Your task to perform on an android device: turn notification dots on Image 0: 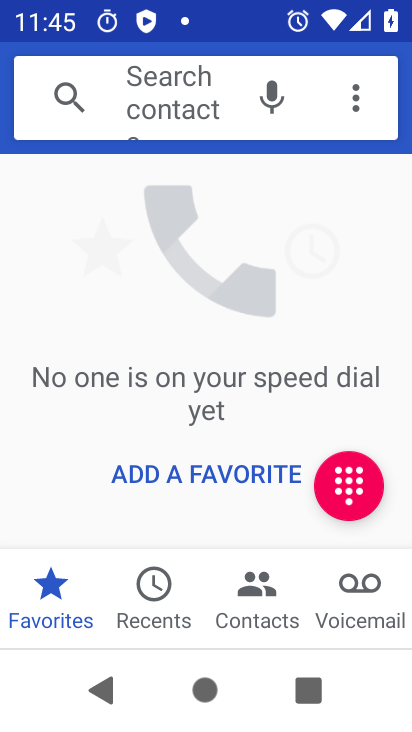
Step 0: press home button
Your task to perform on an android device: turn notification dots on Image 1: 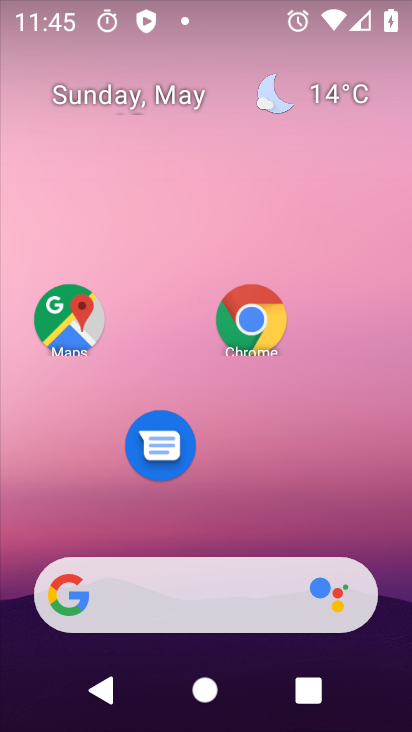
Step 1: drag from (181, 586) to (348, 133)
Your task to perform on an android device: turn notification dots on Image 2: 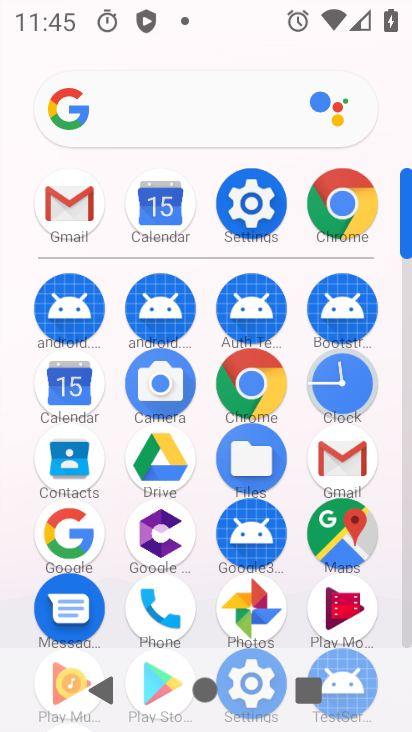
Step 2: click (245, 212)
Your task to perform on an android device: turn notification dots on Image 3: 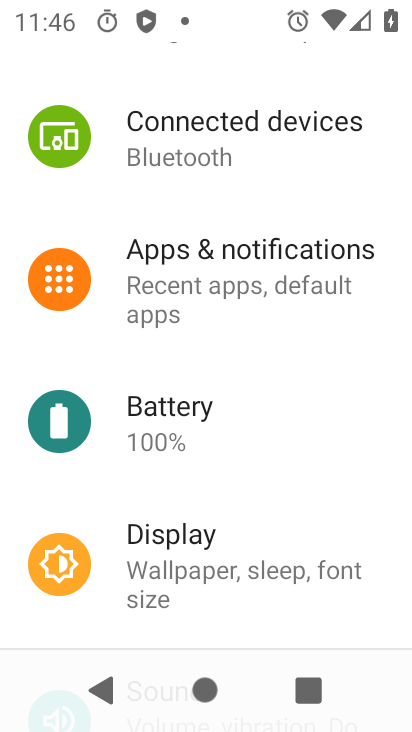
Step 3: click (275, 262)
Your task to perform on an android device: turn notification dots on Image 4: 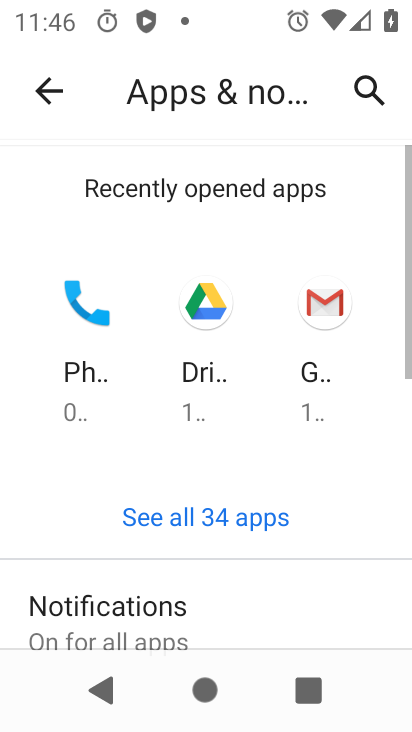
Step 4: drag from (262, 498) to (376, 157)
Your task to perform on an android device: turn notification dots on Image 5: 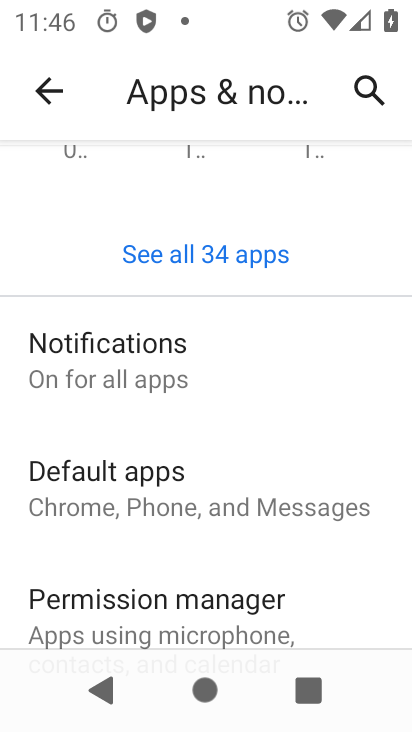
Step 5: click (164, 357)
Your task to perform on an android device: turn notification dots on Image 6: 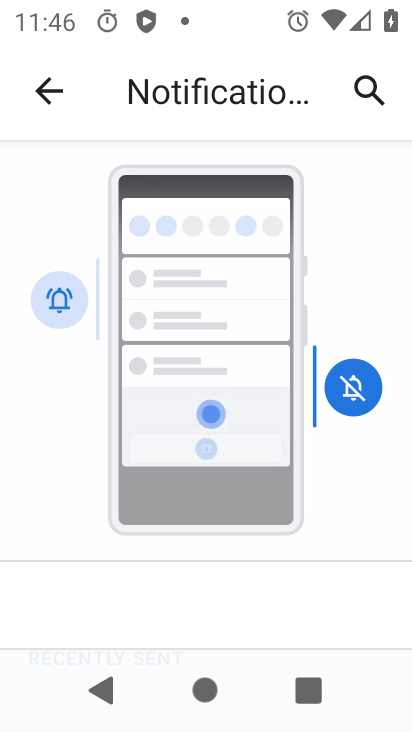
Step 6: drag from (204, 599) to (357, 193)
Your task to perform on an android device: turn notification dots on Image 7: 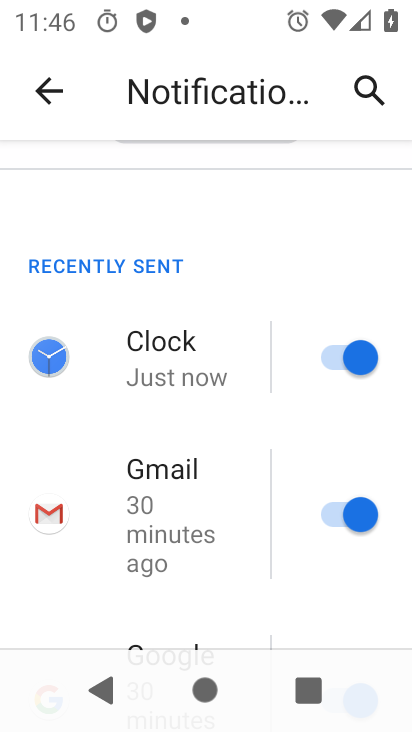
Step 7: drag from (243, 544) to (388, 145)
Your task to perform on an android device: turn notification dots on Image 8: 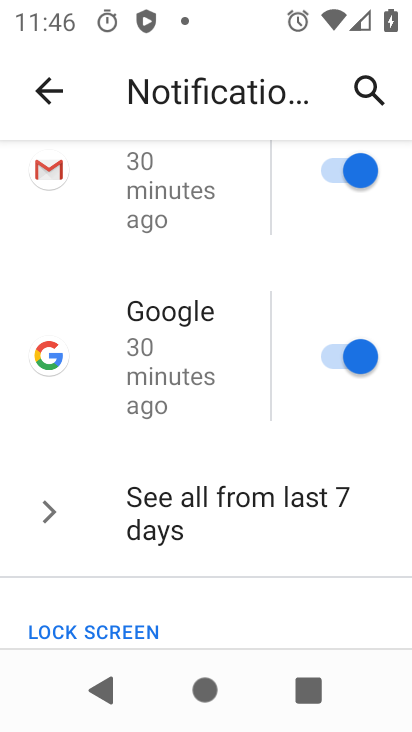
Step 8: drag from (186, 588) to (329, 166)
Your task to perform on an android device: turn notification dots on Image 9: 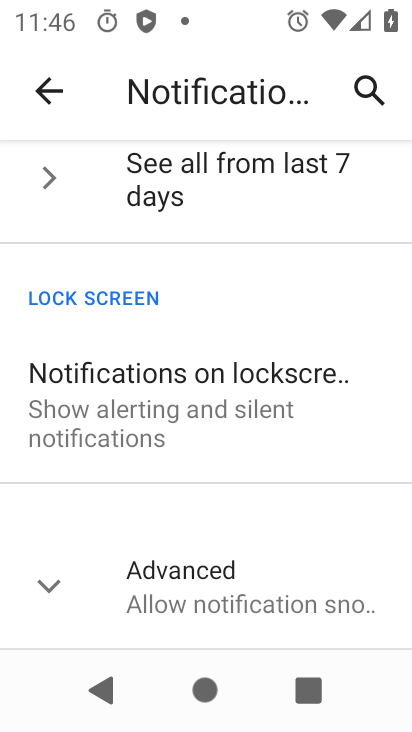
Step 9: click (204, 580)
Your task to perform on an android device: turn notification dots on Image 10: 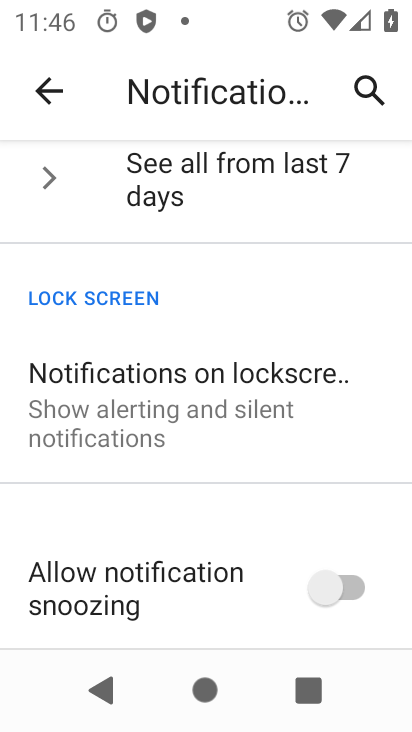
Step 10: drag from (236, 589) to (405, 119)
Your task to perform on an android device: turn notification dots on Image 11: 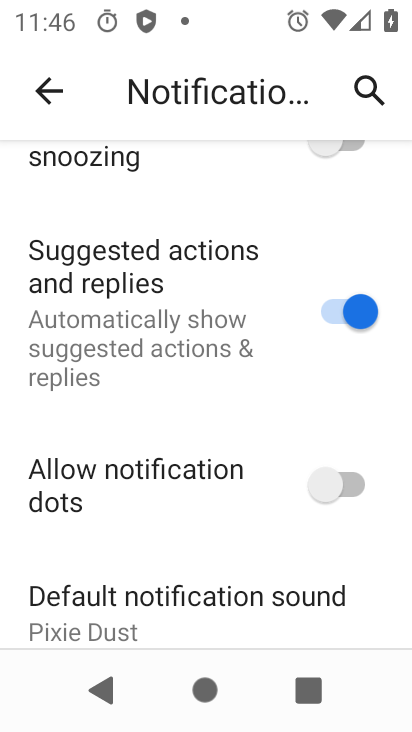
Step 11: click (354, 486)
Your task to perform on an android device: turn notification dots on Image 12: 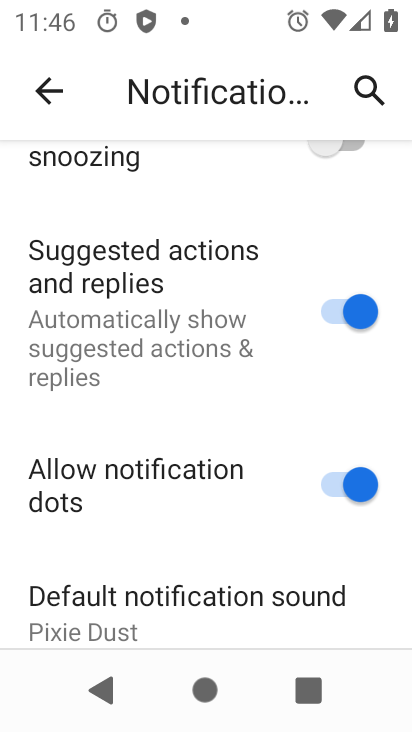
Step 12: task complete